Your task to perform on an android device: turn on the 12-hour format for clock Image 0: 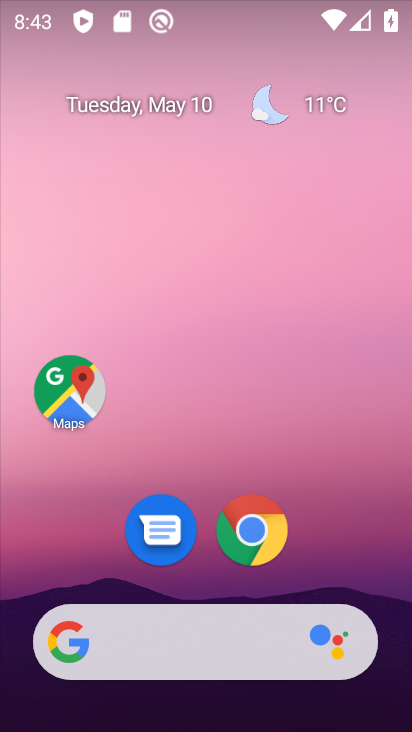
Step 0: drag from (334, 555) to (400, 67)
Your task to perform on an android device: turn on the 12-hour format for clock Image 1: 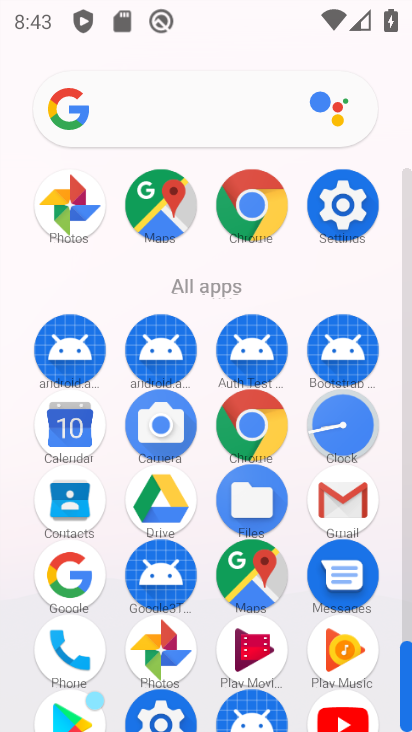
Step 1: click (349, 442)
Your task to perform on an android device: turn on the 12-hour format for clock Image 2: 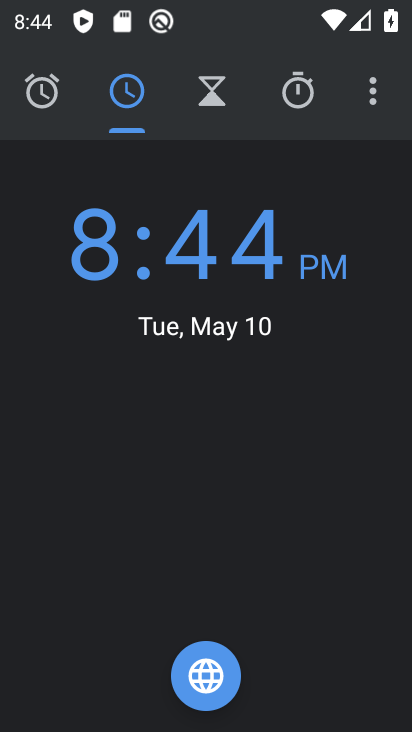
Step 2: click (369, 101)
Your task to perform on an android device: turn on the 12-hour format for clock Image 3: 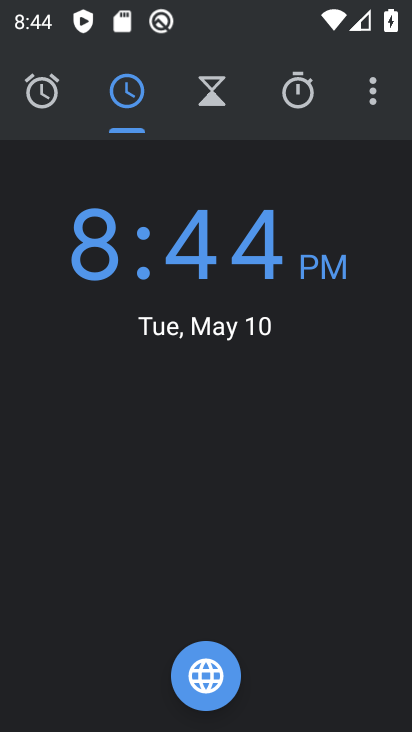
Step 3: click (377, 96)
Your task to perform on an android device: turn on the 12-hour format for clock Image 4: 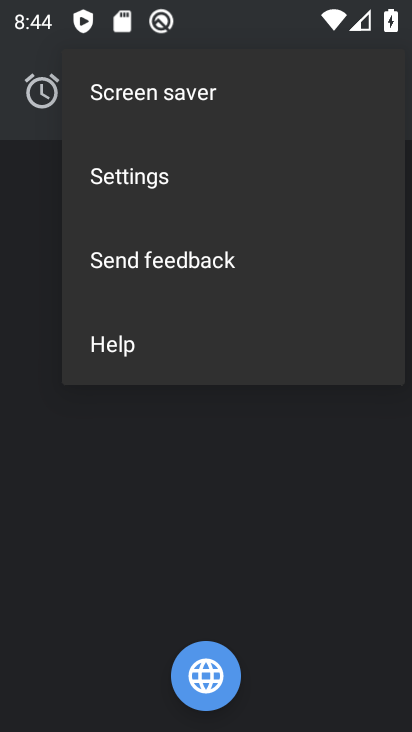
Step 4: click (158, 198)
Your task to perform on an android device: turn on the 12-hour format for clock Image 5: 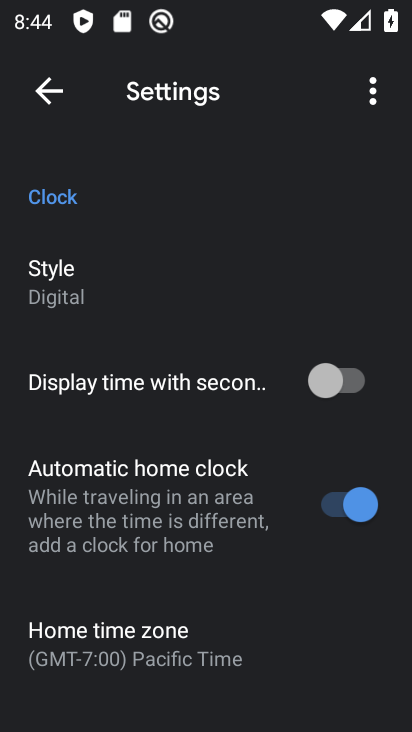
Step 5: drag from (212, 455) to (220, 208)
Your task to perform on an android device: turn on the 12-hour format for clock Image 6: 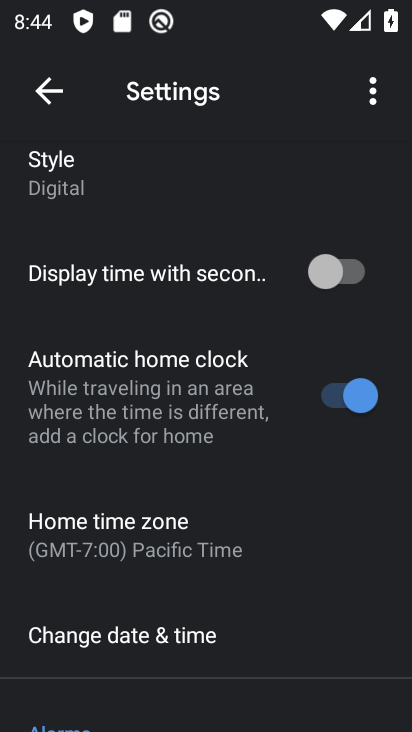
Step 6: click (145, 635)
Your task to perform on an android device: turn on the 12-hour format for clock Image 7: 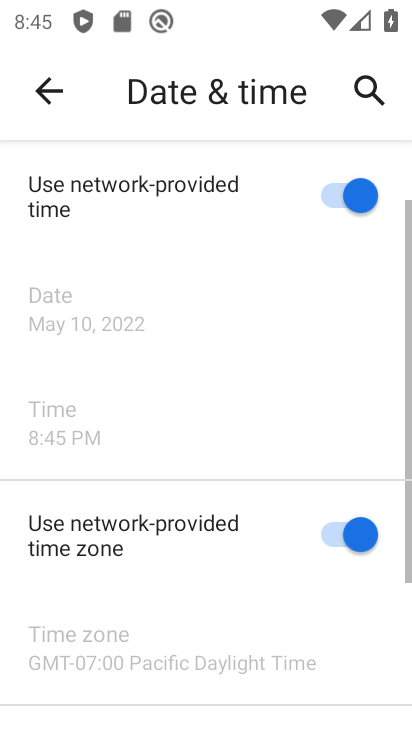
Step 7: drag from (217, 639) to (223, 269)
Your task to perform on an android device: turn on the 12-hour format for clock Image 8: 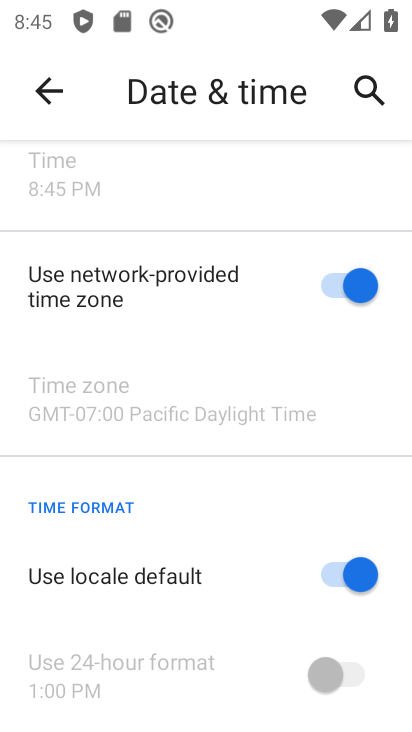
Step 8: drag from (123, 602) to (148, 256)
Your task to perform on an android device: turn on the 12-hour format for clock Image 9: 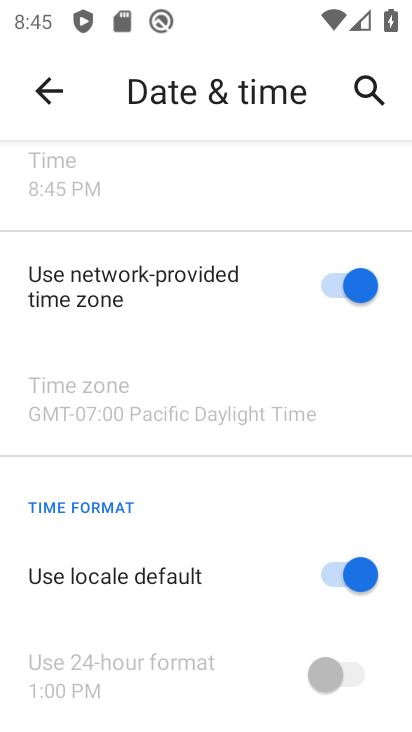
Step 9: drag from (164, 660) to (199, 409)
Your task to perform on an android device: turn on the 12-hour format for clock Image 10: 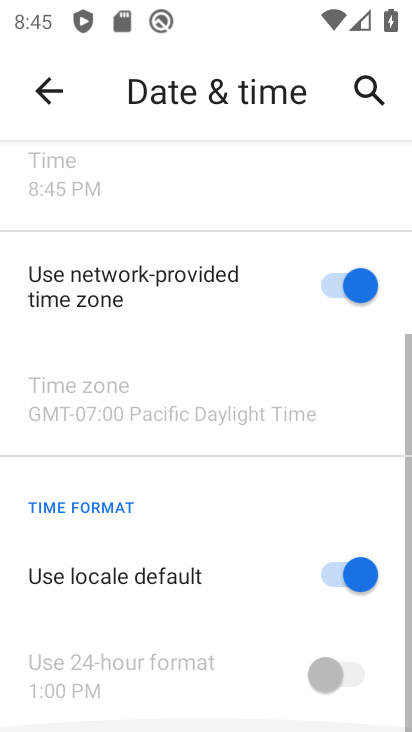
Step 10: click (334, 572)
Your task to perform on an android device: turn on the 12-hour format for clock Image 11: 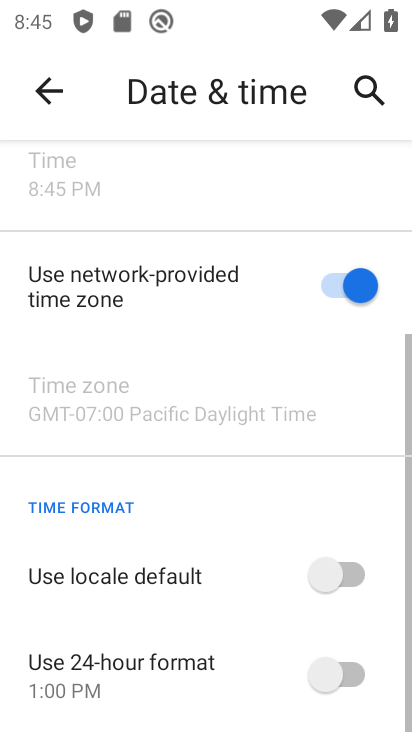
Step 11: click (321, 677)
Your task to perform on an android device: turn on the 12-hour format for clock Image 12: 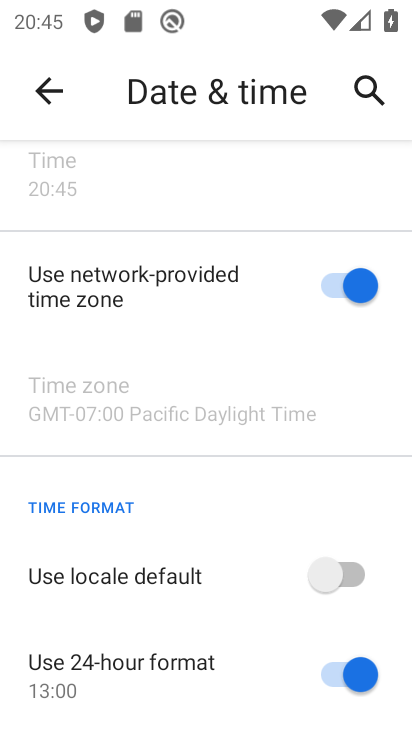
Step 12: task complete